Your task to perform on an android device: Clear the shopping cart on target. Add "acer predator" to the cart on target Image 0: 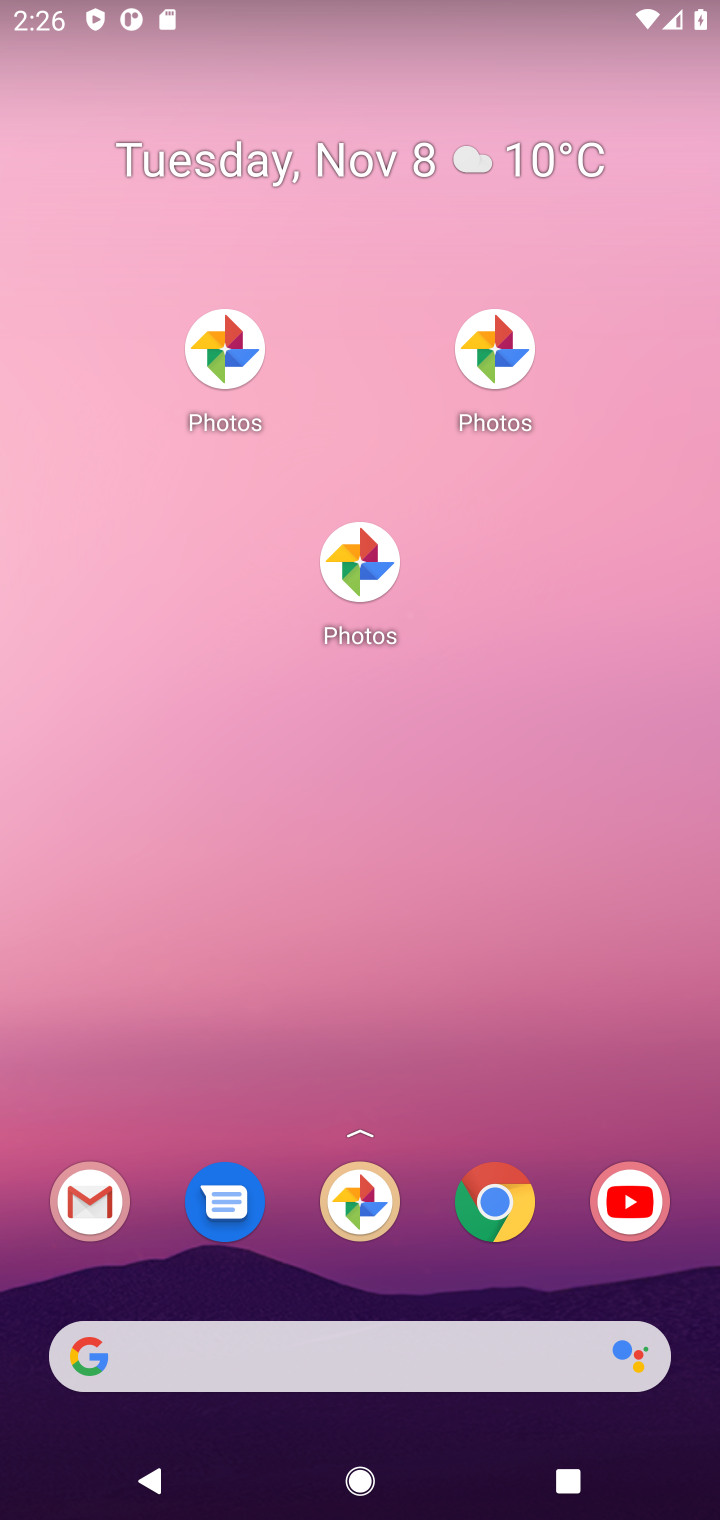
Step 0: press home button
Your task to perform on an android device: Clear the shopping cart on target. Add "acer predator" to the cart on target Image 1: 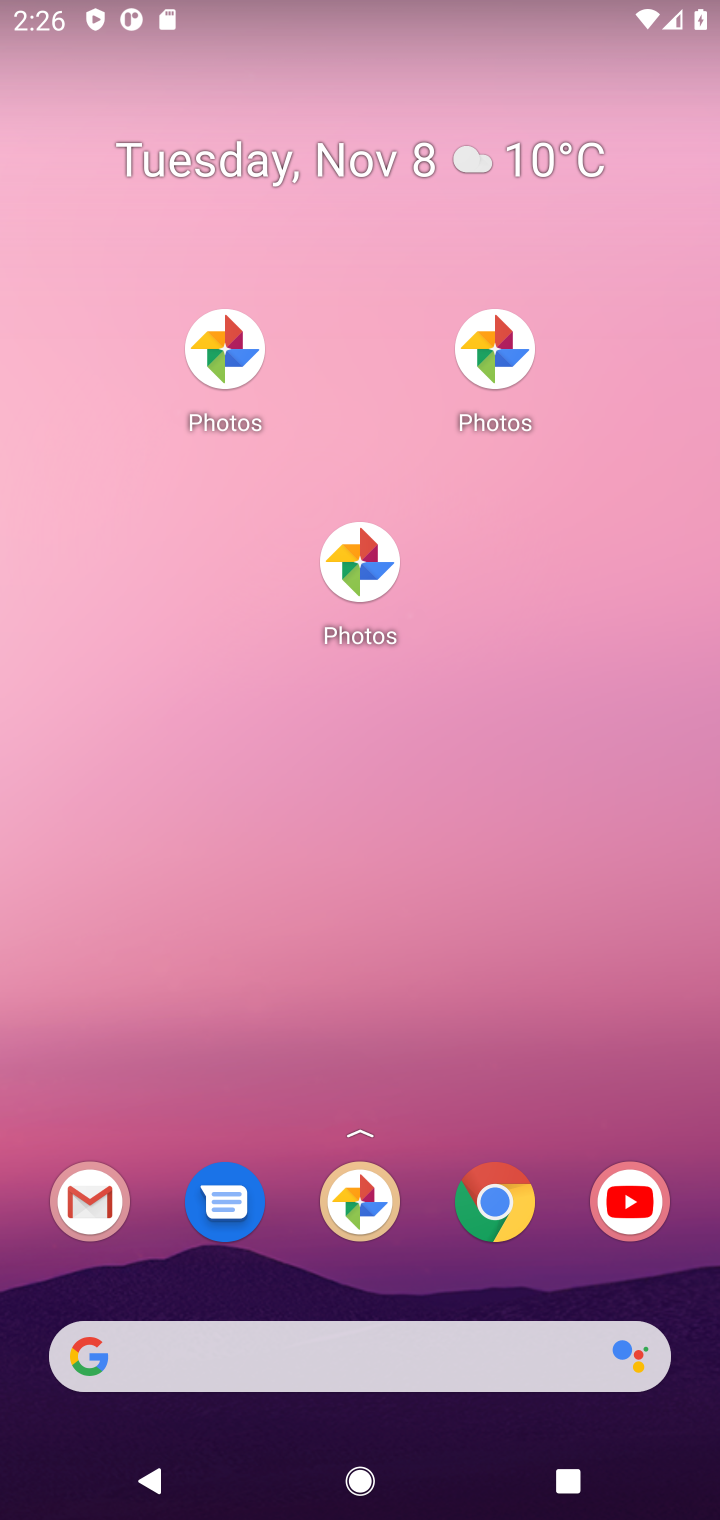
Step 1: drag from (433, 1181) to (475, 35)
Your task to perform on an android device: Clear the shopping cart on target. Add "acer predator" to the cart on target Image 2: 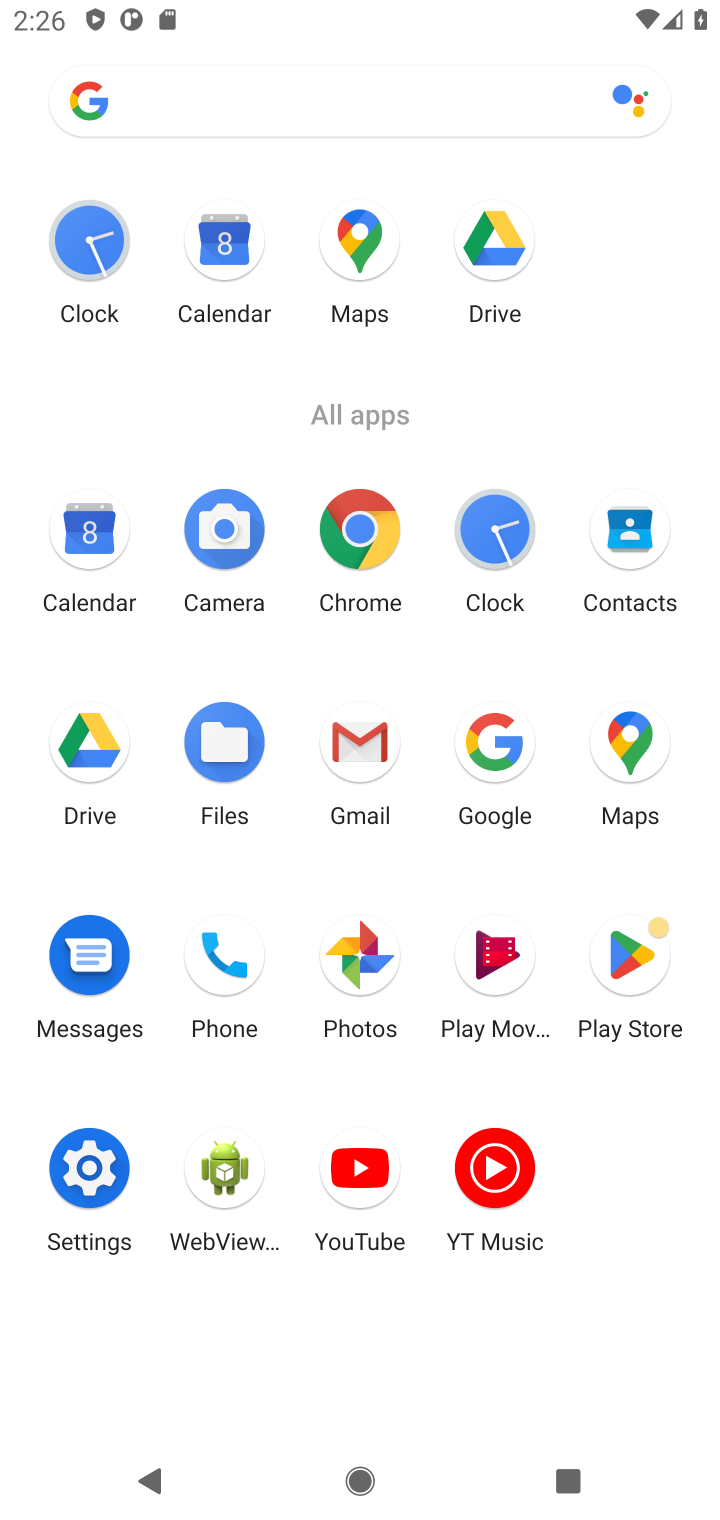
Step 2: click (498, 768)
Your task to perform on an android device: Clear the shopping cart on target. Add "acer predator" to the cart on target Image 3: 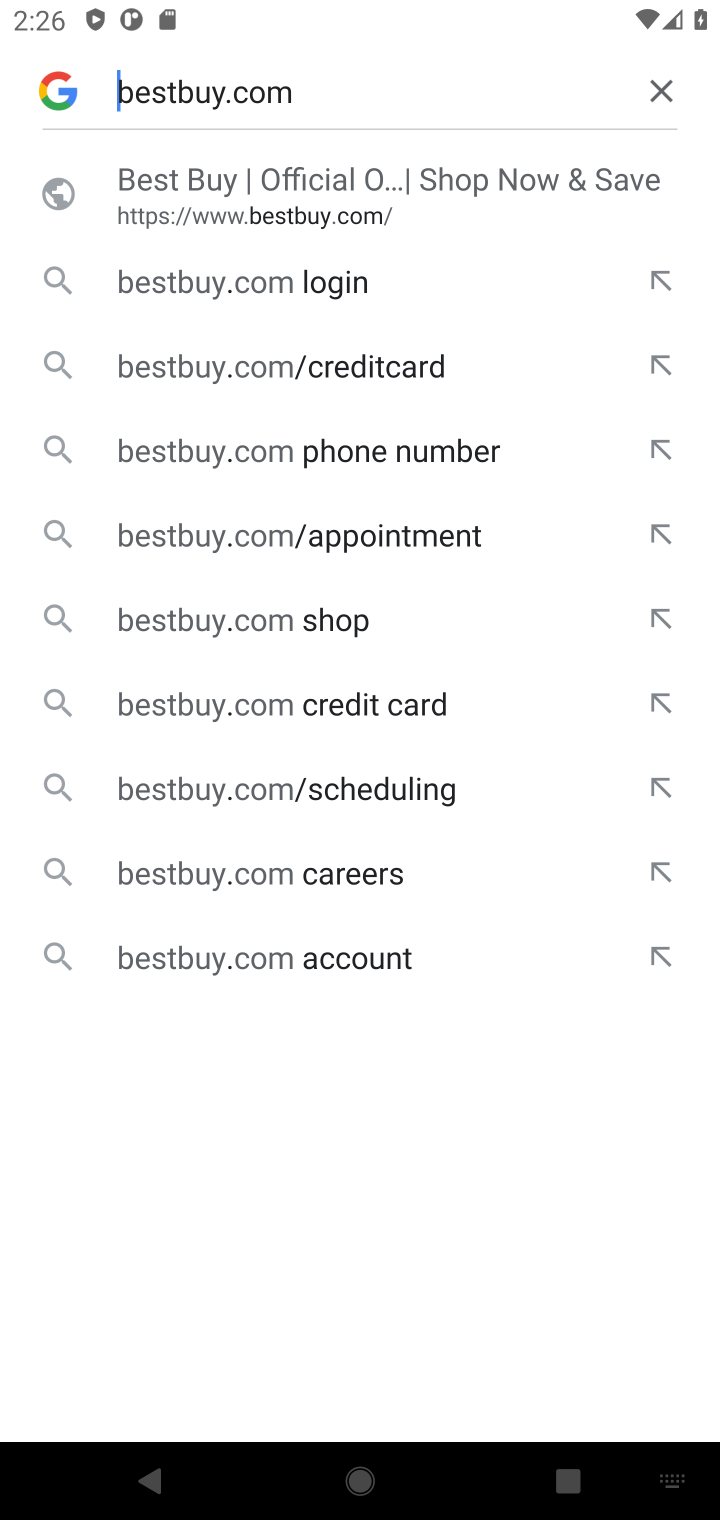
Step 3: click (660, 102)
Your task to perform on an android device: Clear the shopping cart on target. Add "acer predator" to the cart on target Image 4: 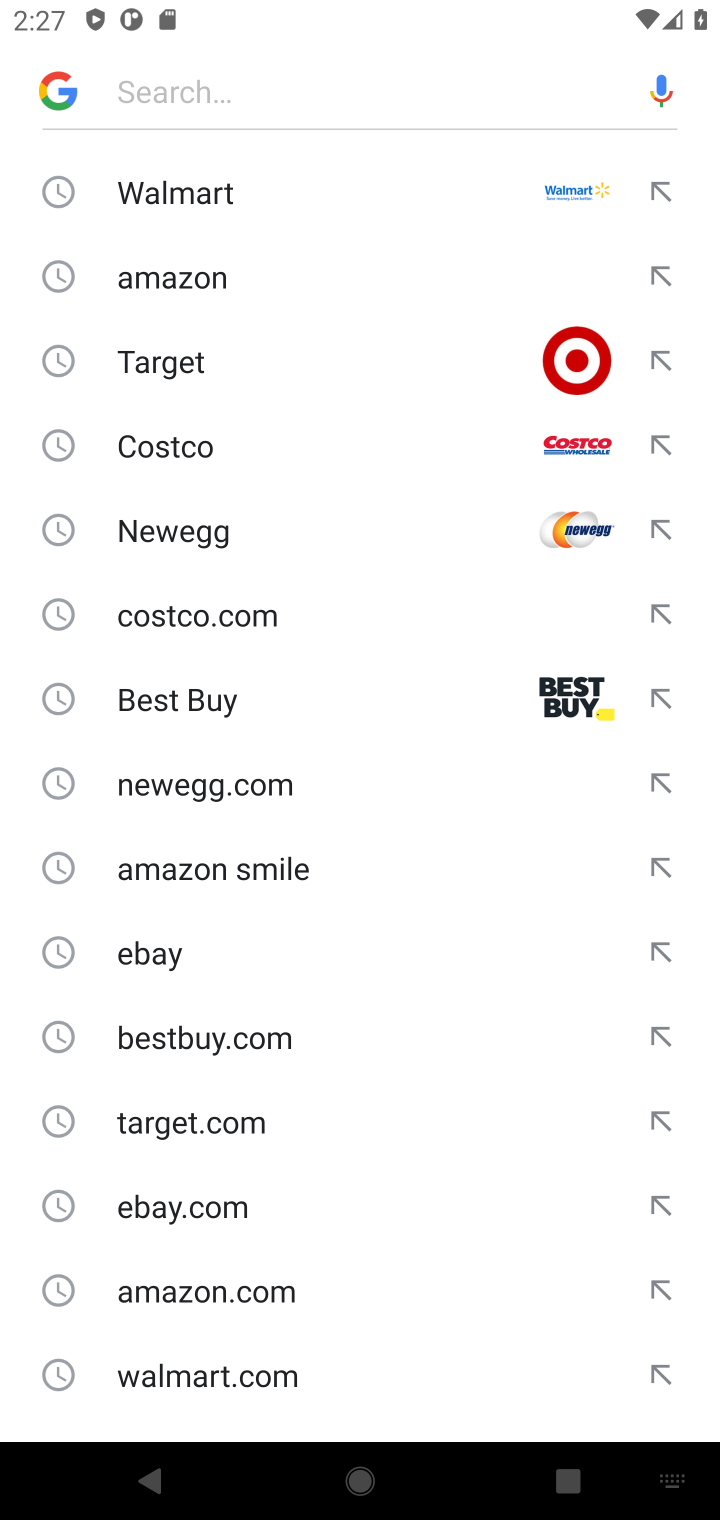
Step 4: click (384, 361)
Your task to perform on an android device: Clear the shopping cart on target. Add "acer predator" to the cart on target Image 5: 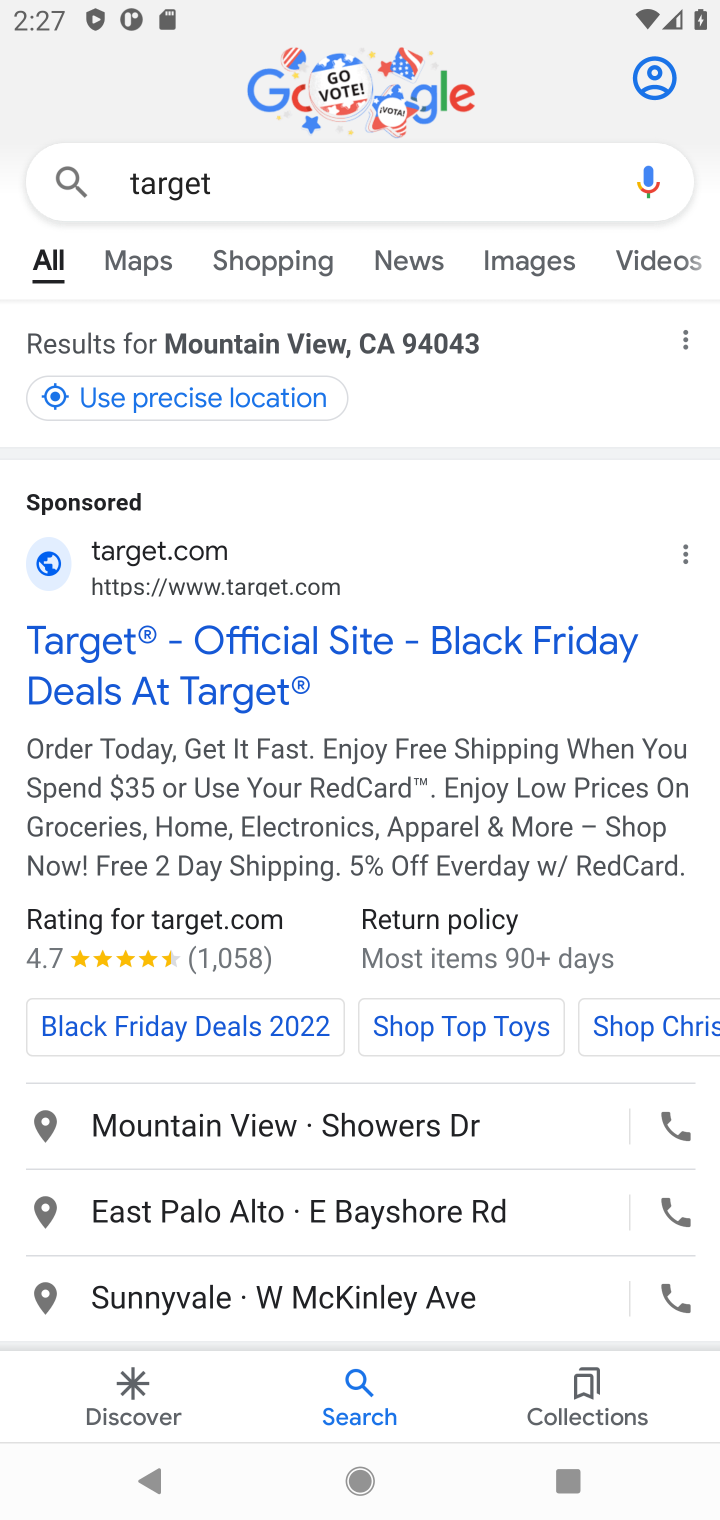
Step 5: click (314, 654)
Your task to perform on an android device: Clear the shopping cart on target. Add "acer predator" to the cart on target Image 6: 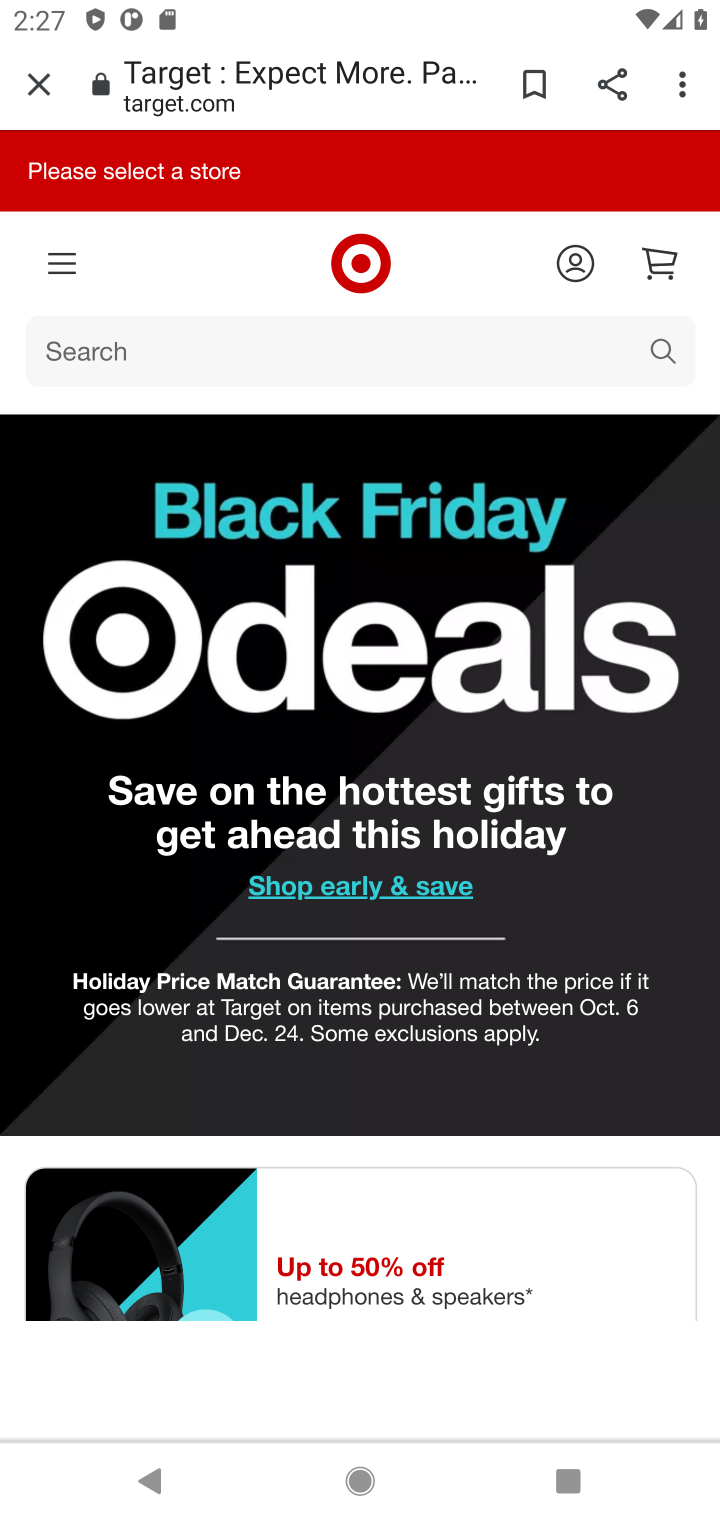
Step 6: click (190, 358)
Your task to perform on an android device: Clear the shopping cart on target. Add "acer predator" to the cart on target Image 7: 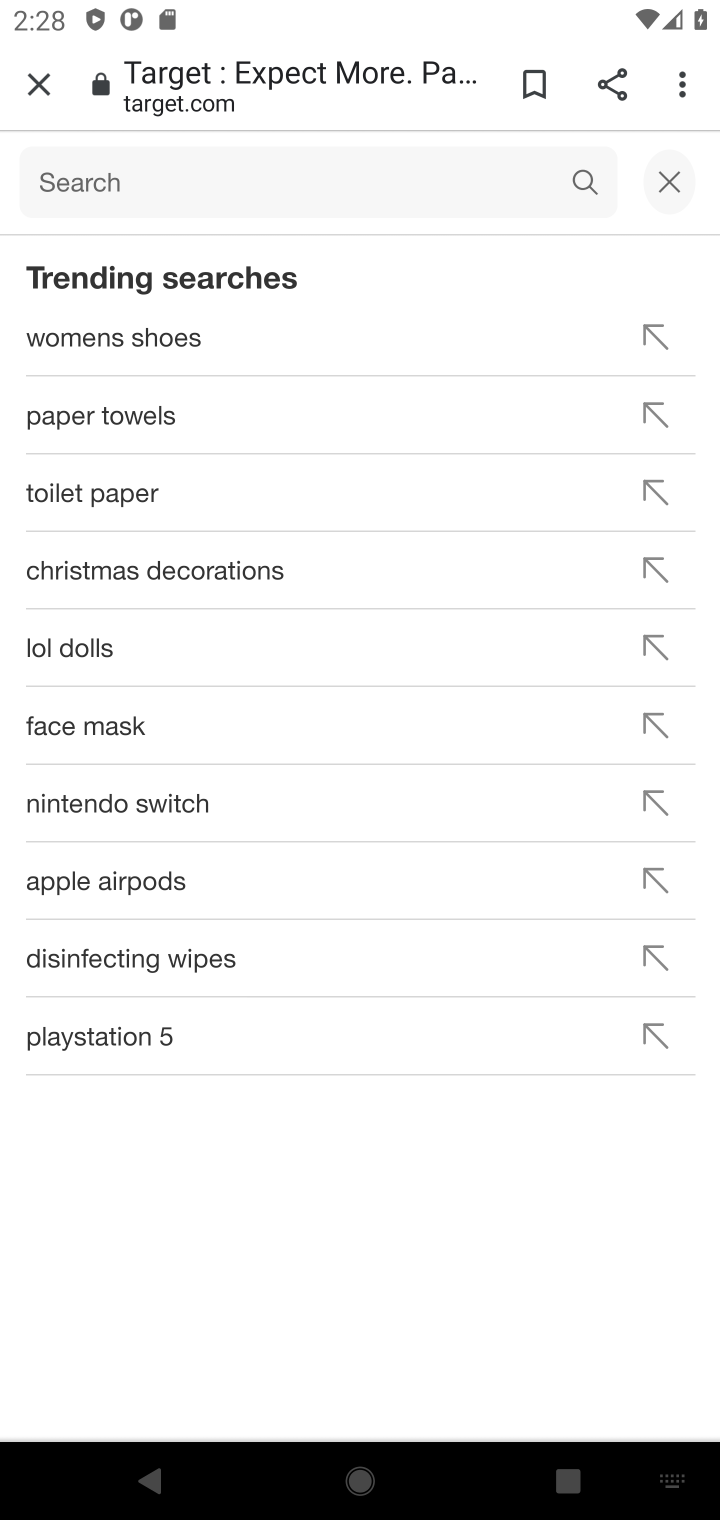
Step 7: type "acer predator"
Your task to perform on an android device: Clear the shopping cart on target. Add "acer predator" to the cart on target Image 8: 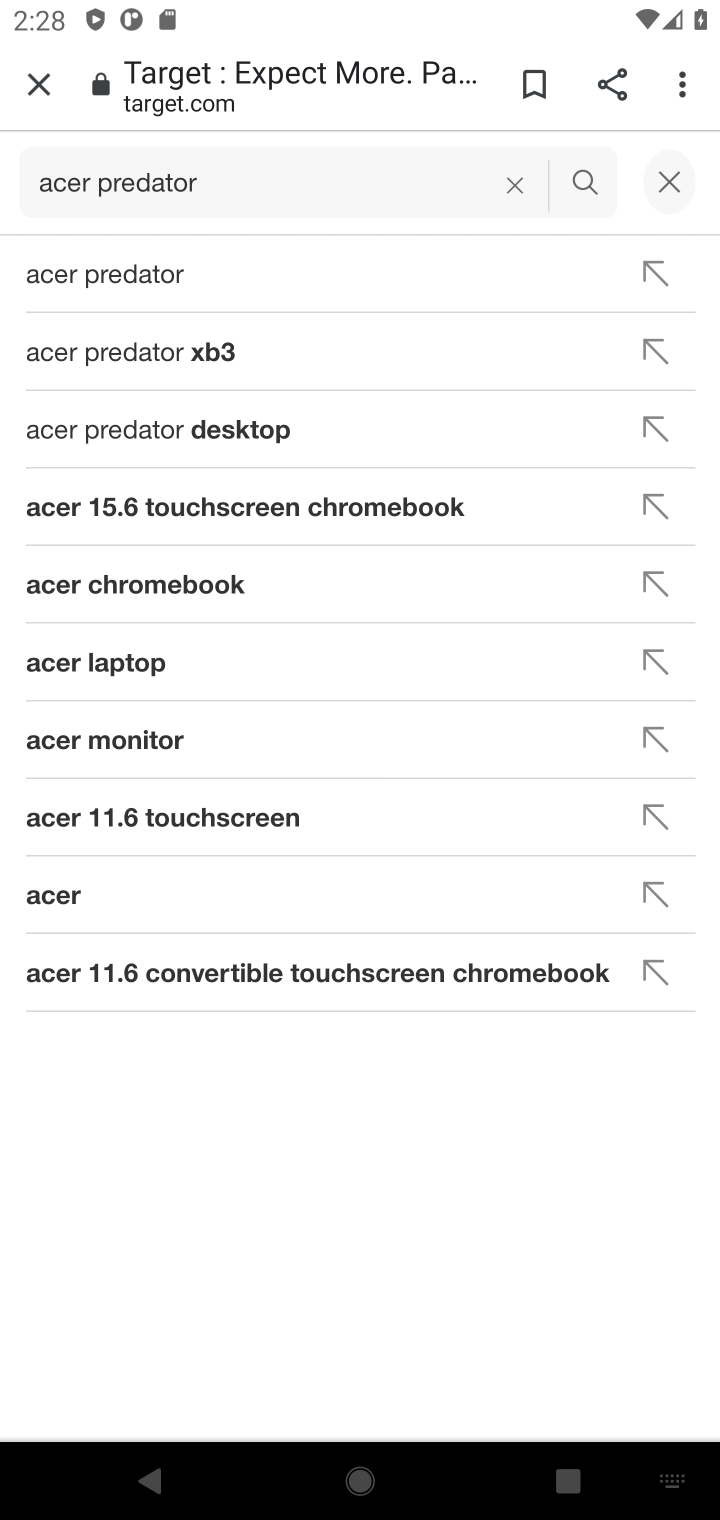
Step 8: click (173, 278)
Your task to perform on an android device: Clear the shopping cart on target. Add "acer predator" to the cart on target Image 9: 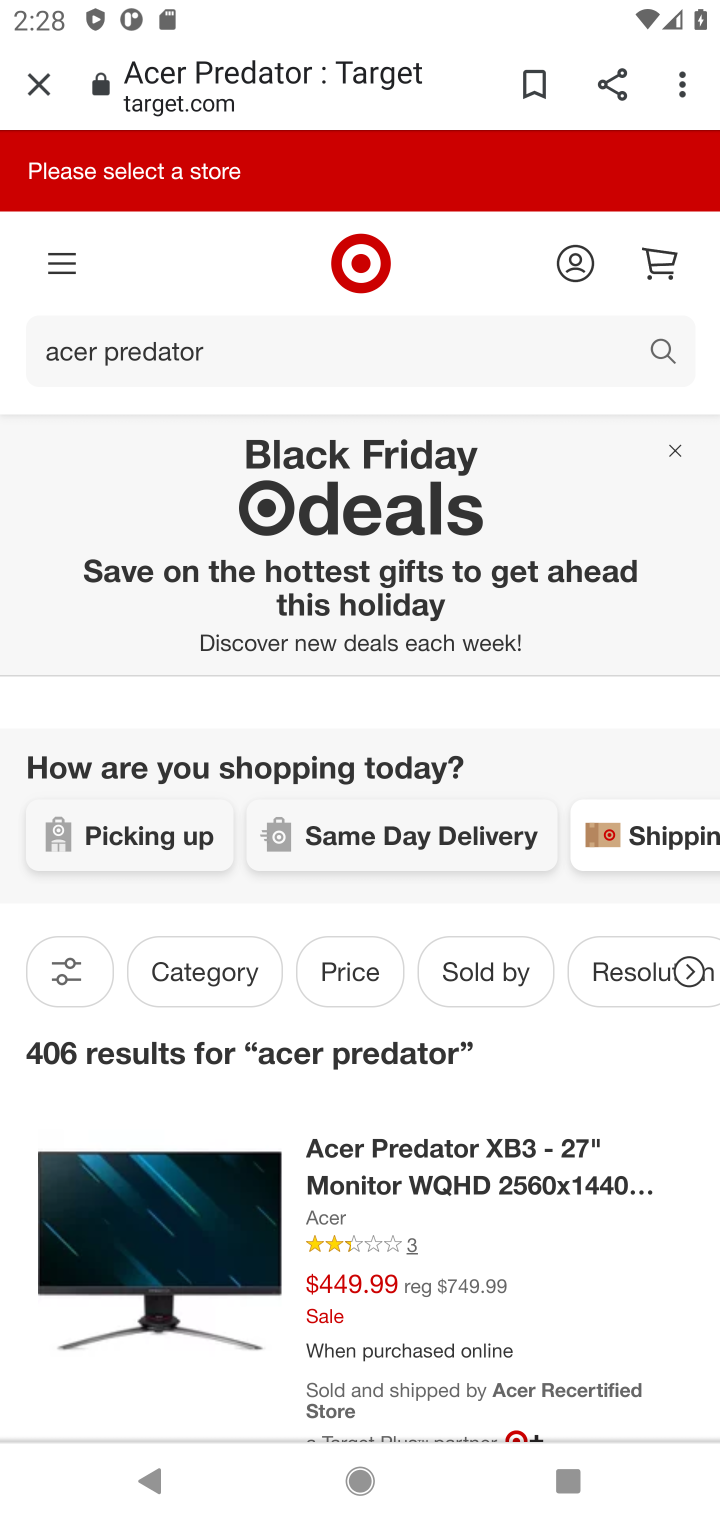
Step 9: click (414, 1173)
Your task to perform on an android device: Clear the shopping cart on target. Add "acer predator" to the cart on target Image 10: 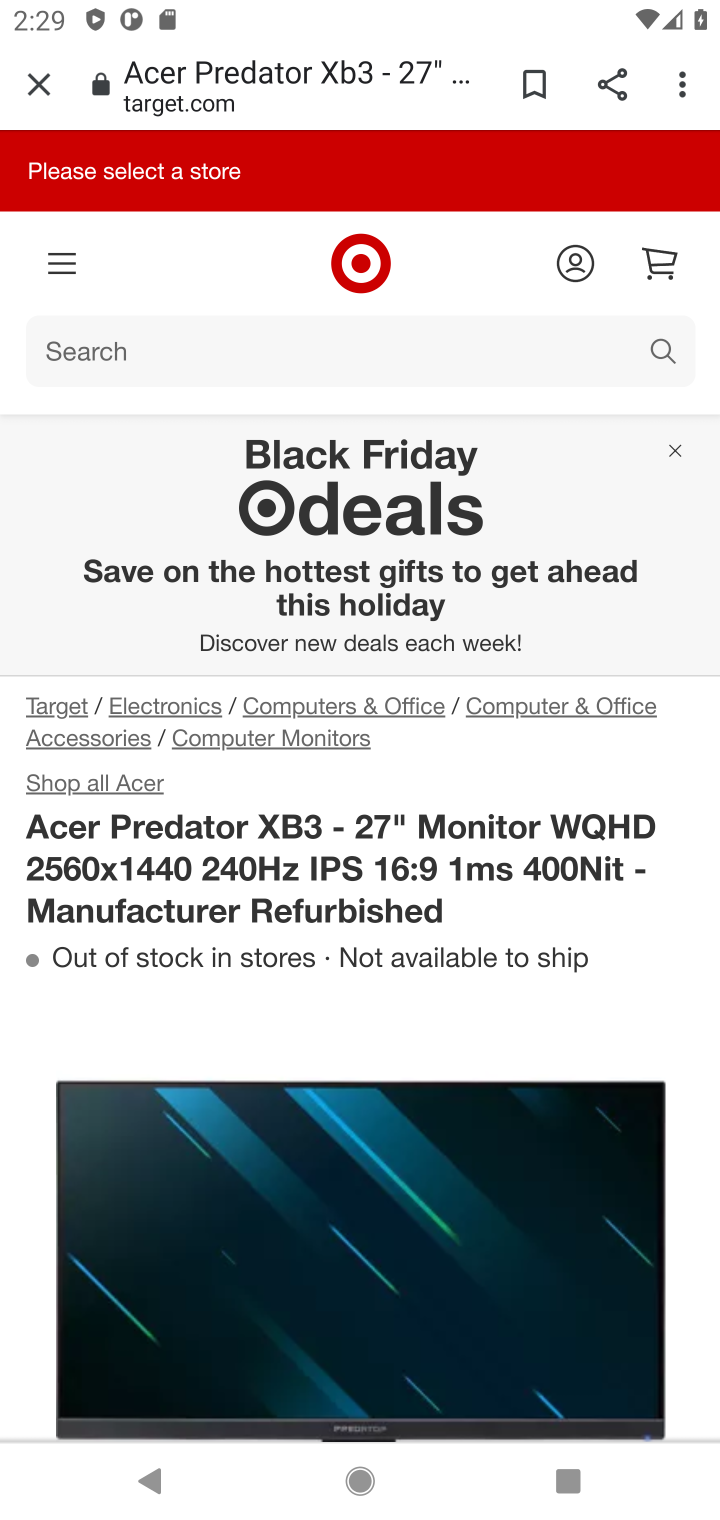
Step 10: task complete